Your task to perform on an android device: toggle show notifications on the lock screen Image 0: 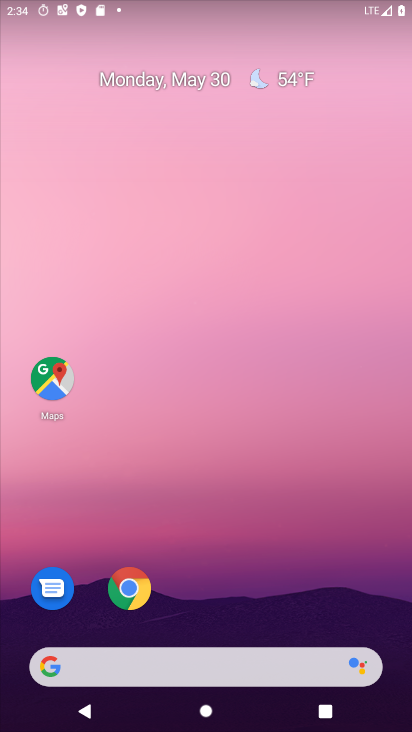
Step 0: drag from (220, 600) to (210, 120)
Your task to perform on an android device: toggle show notifications on the lock screen Image 1: 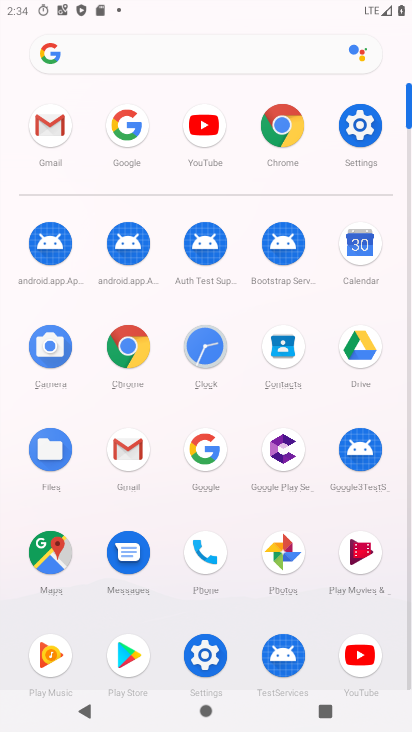
Step 1: click (191, 658)
Your task to perform on an android device: toggle show notifications on the lock screen Image 2: 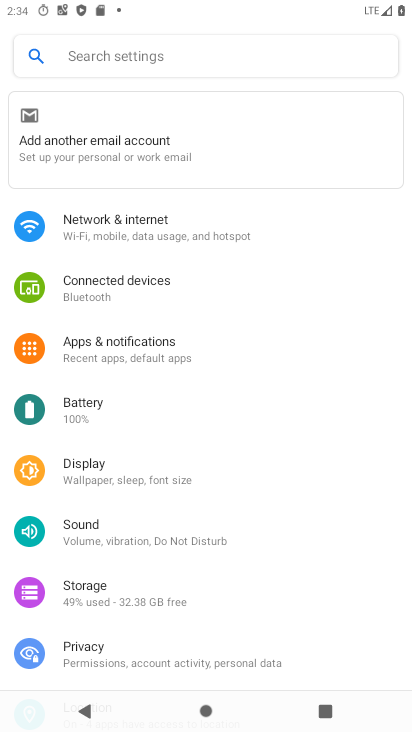
Step 2: click (128, 345)
Your task to perform on an android device: toggle show notifications on the lock screen Image 3: 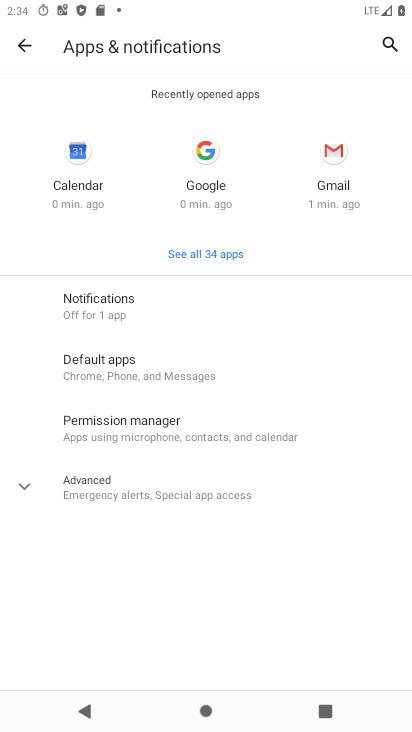
Step 3: click (138, 311)
Your task to perform on an android device: toggle show notifications on the lock screen Image 4: 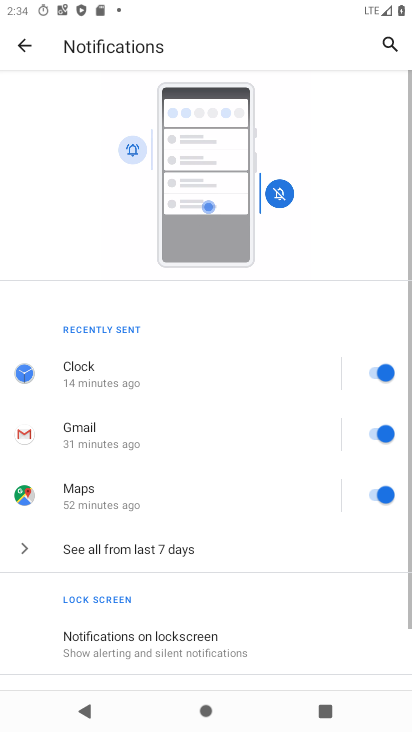
Step 4: click (140, 651)
Your task to perform on an android device: toggle show notifications on the lock screen Image 5: 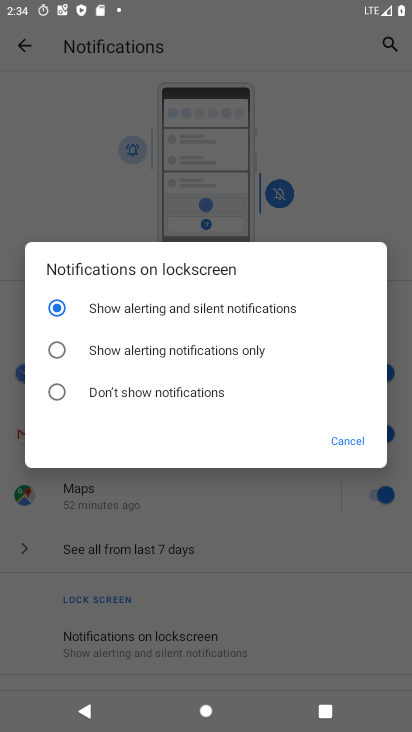
Step 5: click (57, 392)
Your task to perform on an android device: toggle show notifications on the lock screen Image 6: 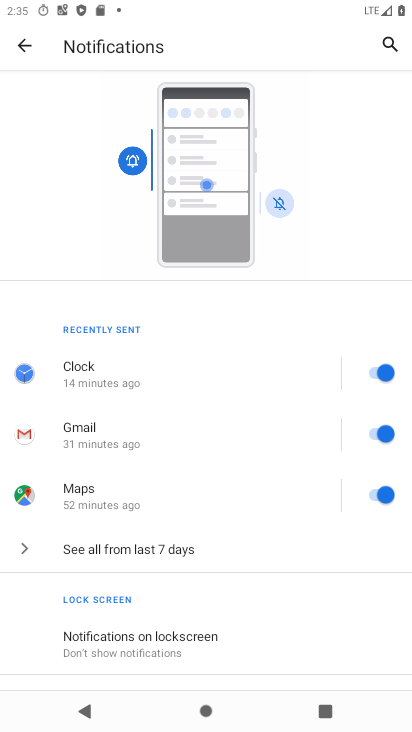
Step 6: task complete